Your task to perform on an android device: Open Youtube and go to the subscriptions tab Image 0: 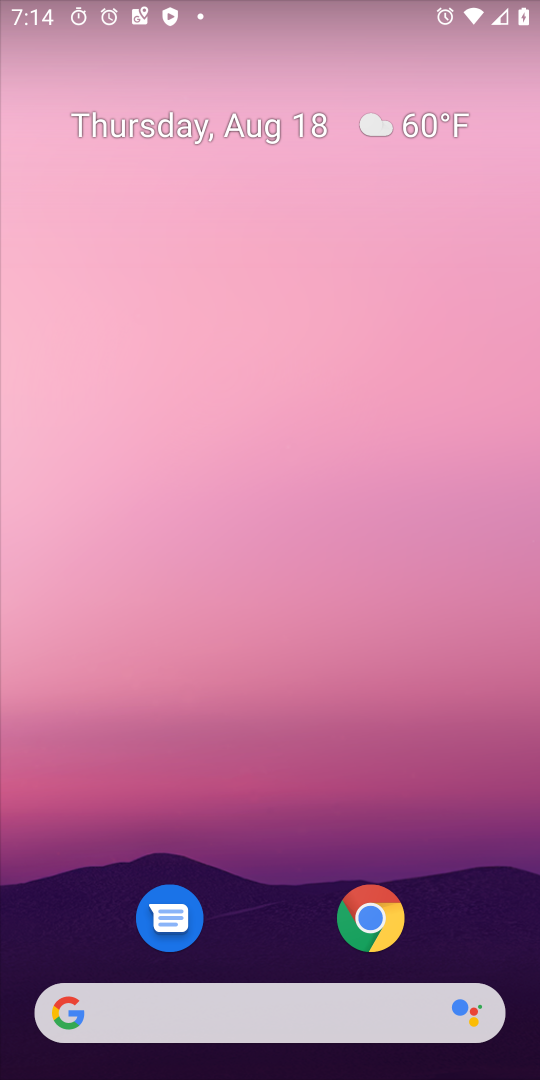
Step 0: press home button
Your task to perform on an android device: Open Youtube and go to the subscriptions tab Image 1: 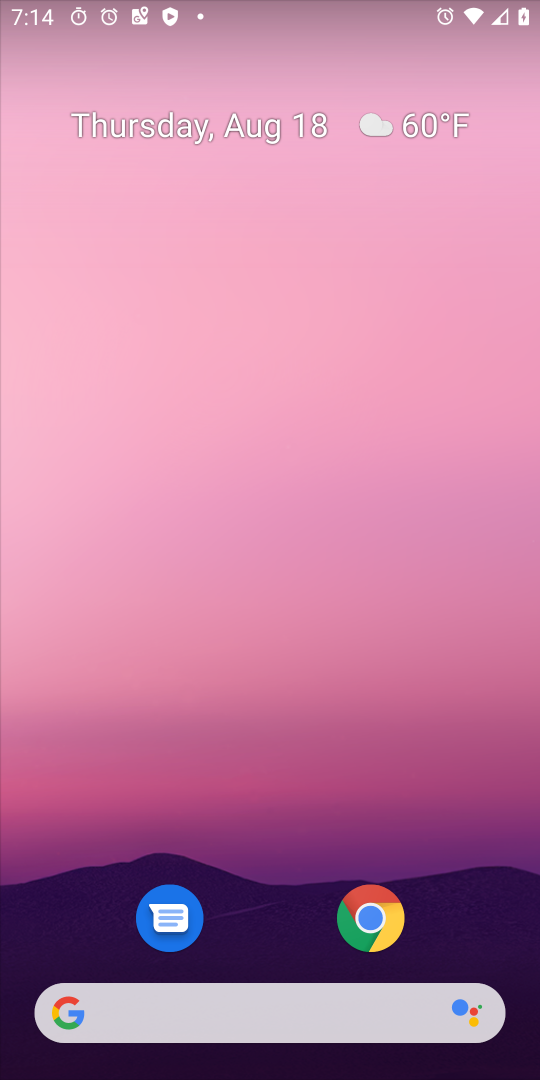
Step 1: drag from (284, 956) to (364, 3)
Your task to perform on an android device: Open Youtube and go to the subscriptions tab Image 2: 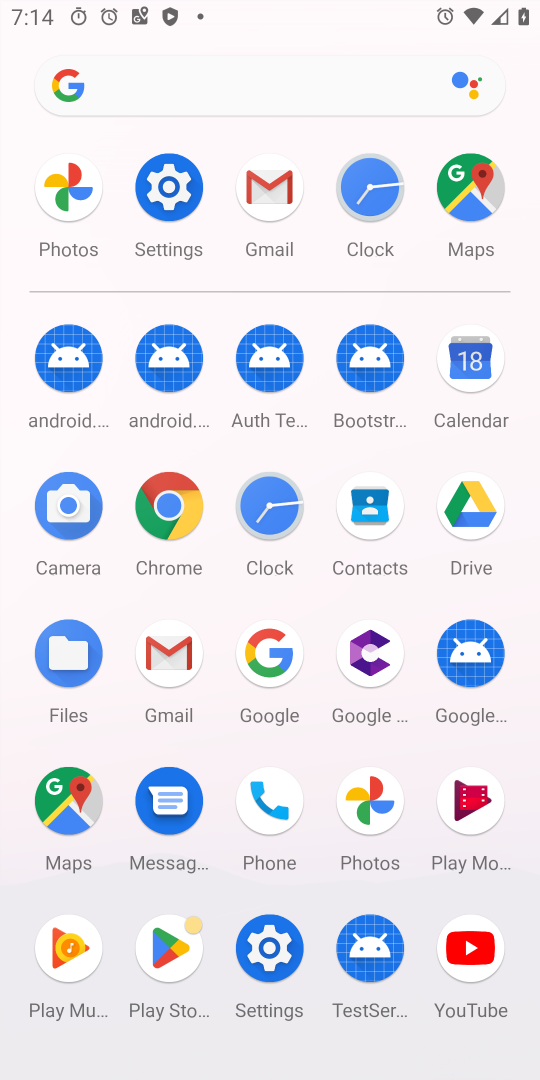
Step 2: click (458, 956)
Your task to perform on an android device: Open Youtube and go to the subscriptions tab Image 3: 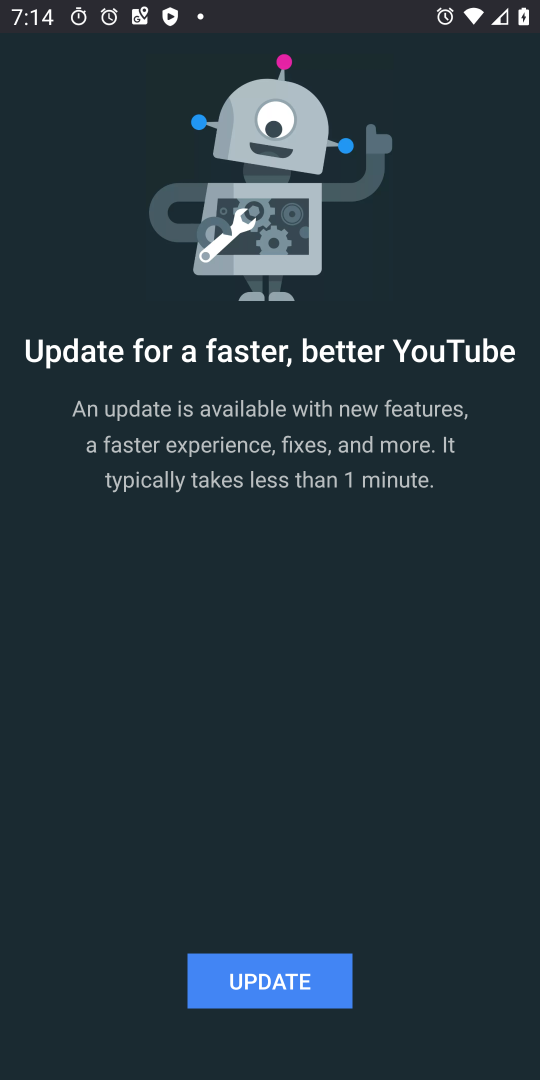
Step 3: click (288, 983)
Your task to perform on an android device: Open Youtube and go to the subscriptions tab Image 4: 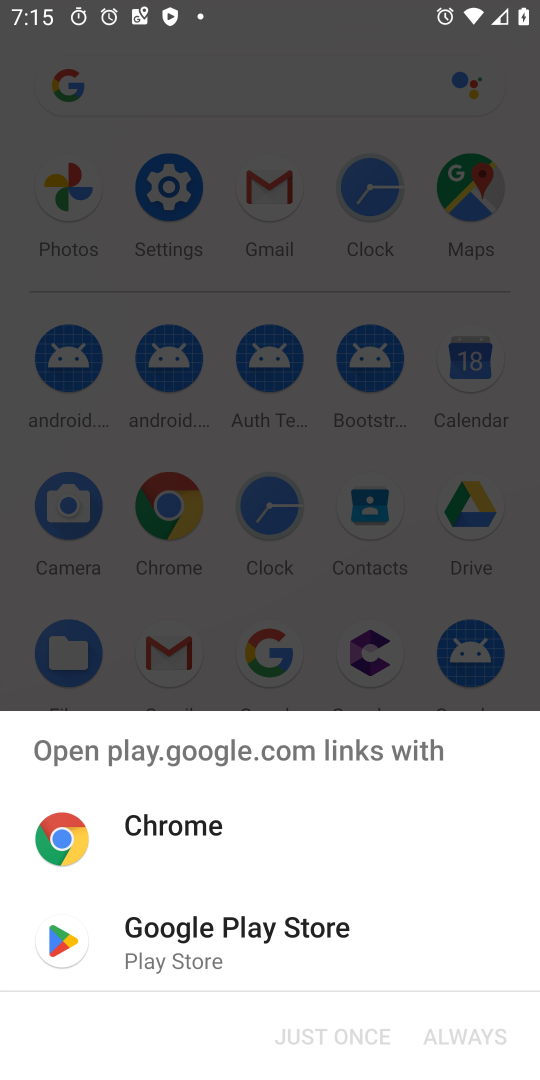
Step 4: click (152, 952)
Your task to perform on an android device: Open Youtube and go to the subscriptions tab Image 5: 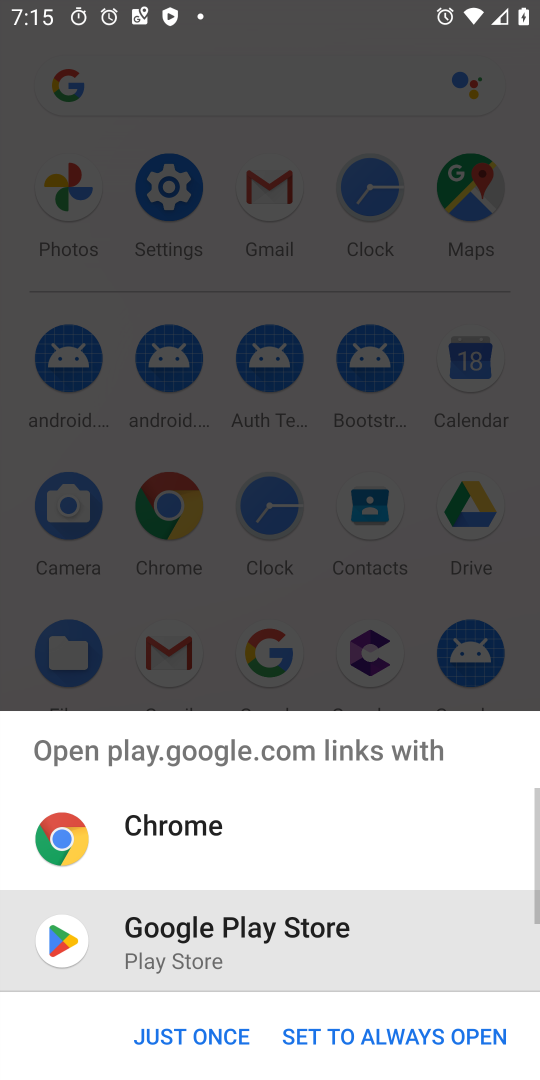
Step 5: click (203, 1032)
Your task to perform on an android device: Open Youtube and go to the subscriptions tab Image 6: 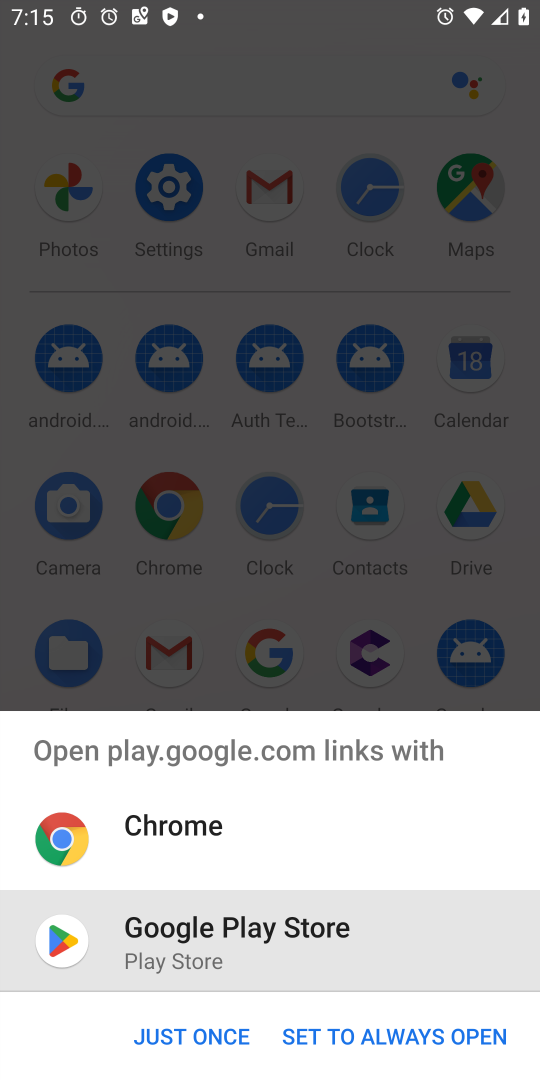
Step 6: click (203, 1032)
Your task to perform on an android device: Open Youtube and go to the subscriptions tab Image 7: 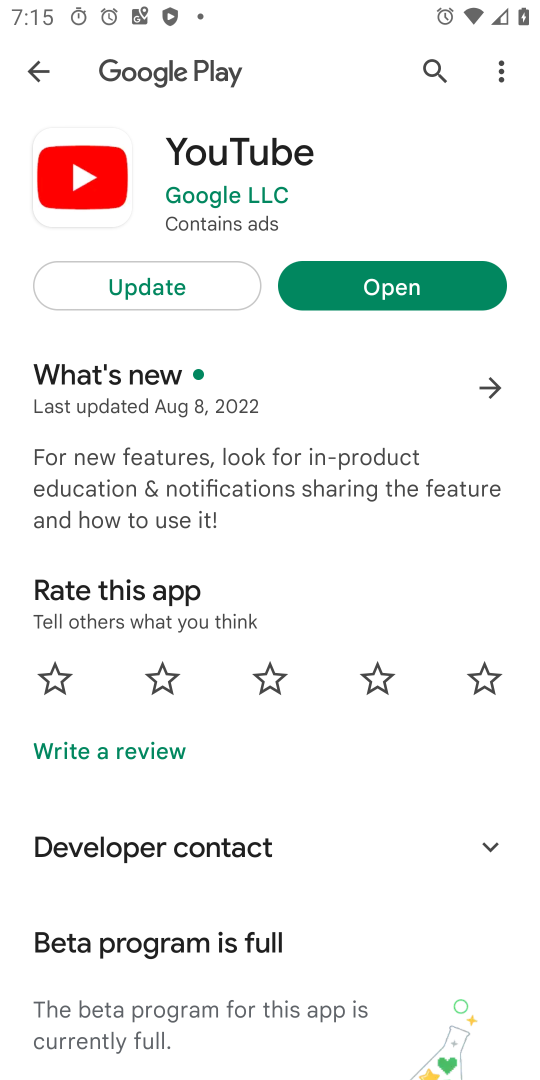
Step 7: click (134, 293)
Your task to perform on an android device: Open Youtube and go to the subscriptions tab Image 8: 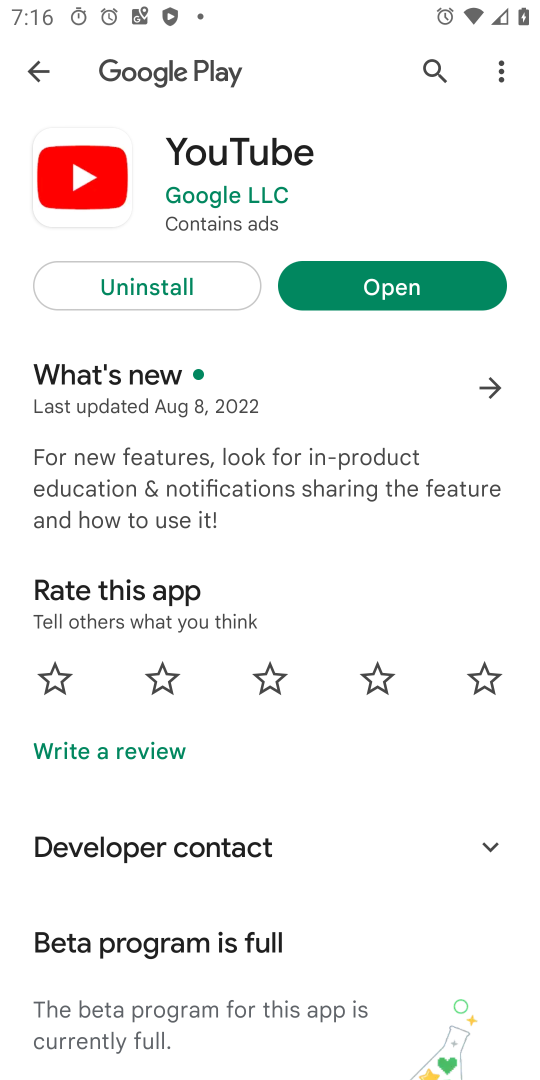
Step 8: click (320, 289)
Your task to perform on an android device: Open Youtube and go to the subscriptions tab Image 9: 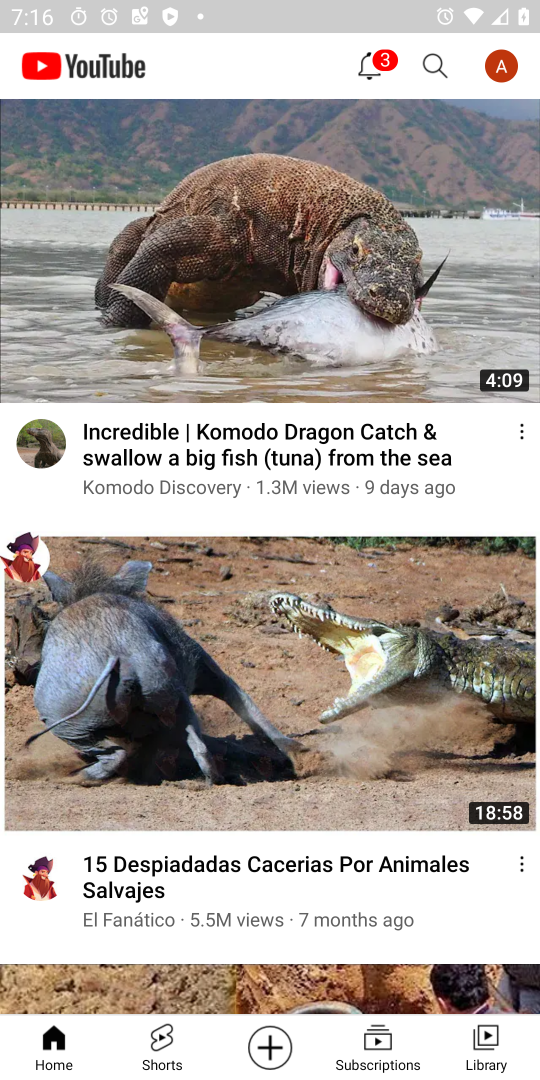
Step 9: click (366, 1038)
Your task to perform on an android device: Open Youtube and go to the subscriptions tab Image 10: 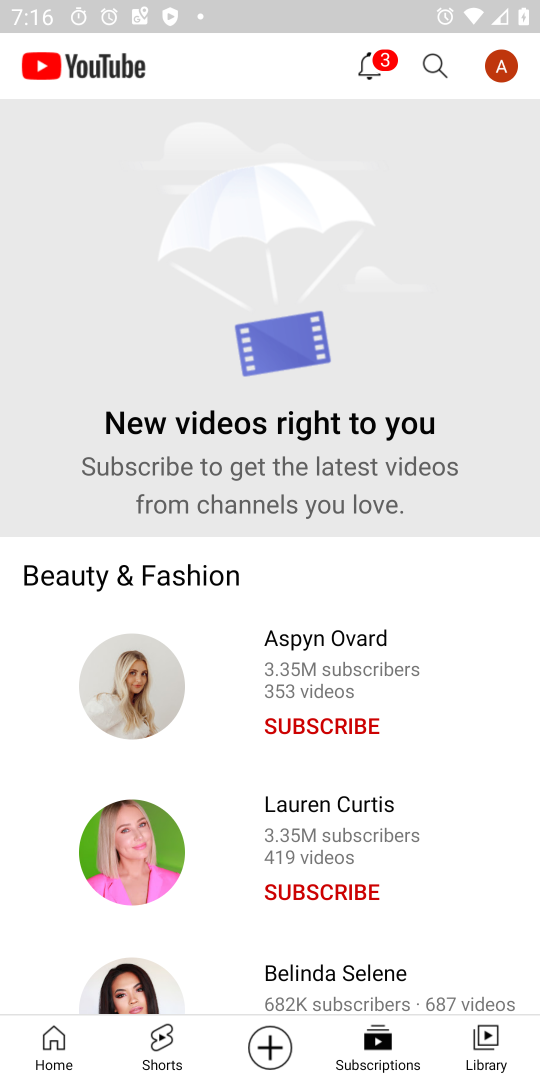
Step 10: task complete